Your task to perform on an android device: Play the last video I watched on Youtube Image 0: 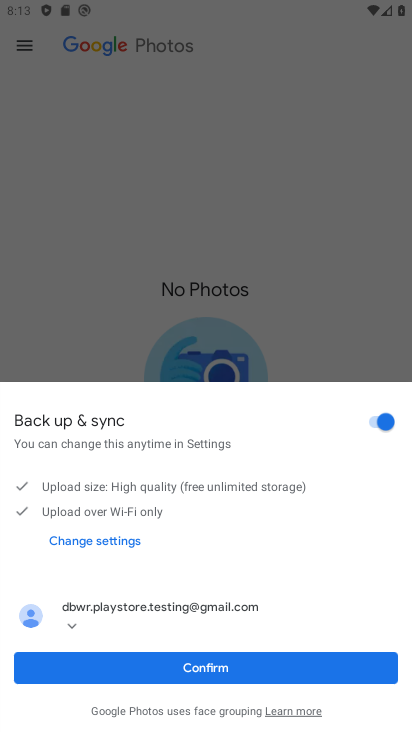
Step 0: press home button
Your task to perform on an android device: Play the last video I watched on Youtube Image 1: 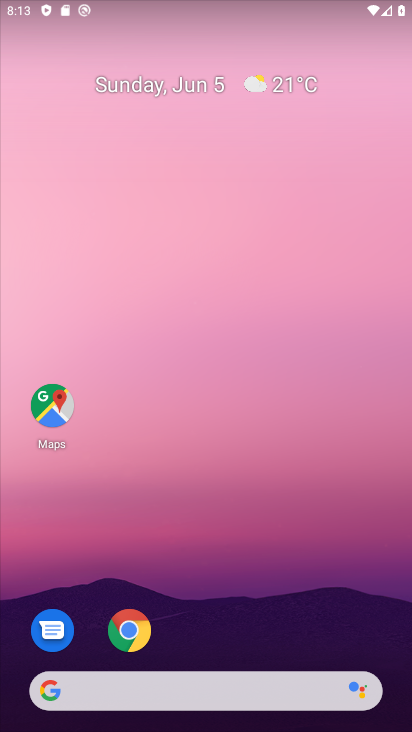
Step 1: drag from (199, 554) to (204, 205)
Your task to perform on an android device: Play the last video I watched on Youtube Image 2: 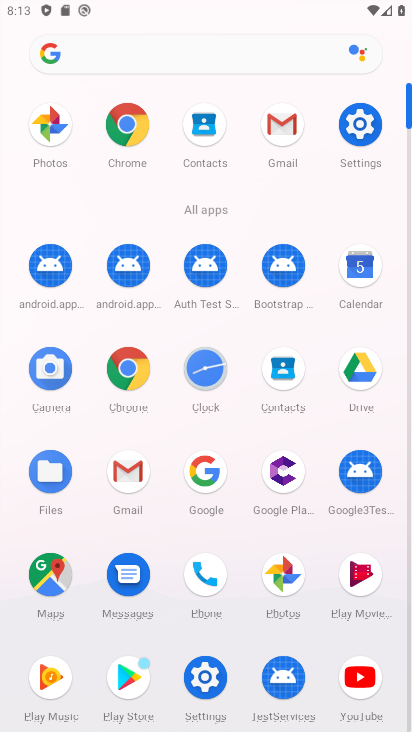
Step 2: click (356, 680)
Your task to perform on an android device: Play the last video I watched on Youtube Image 3: 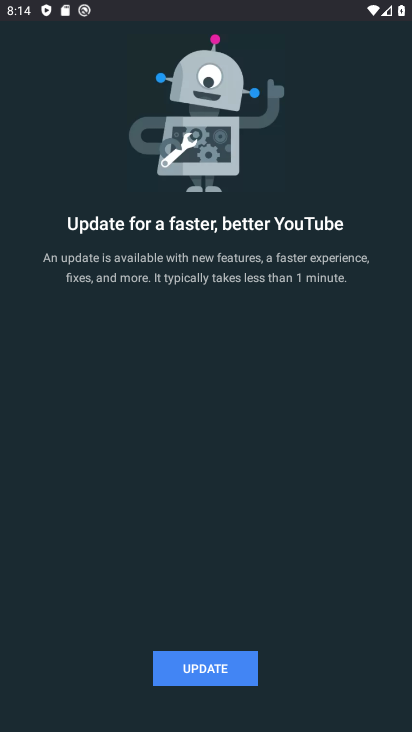
Step 3: task complete